Your task to perform on an android device: see creations saved in the google photos Image 0: 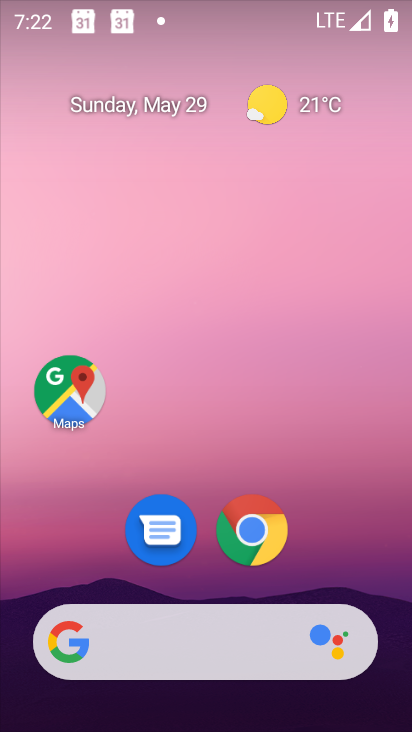
Step 0: drag from (260, 664) to (203, 181)
Your task to perform on an android device: see creations saved in the google photos Image 1: 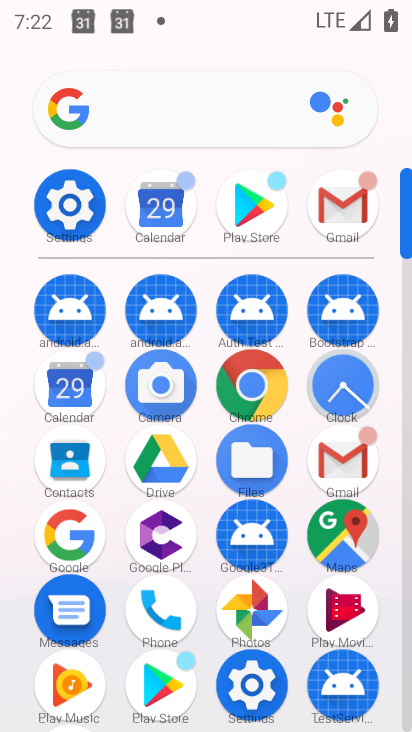
Step 1: click (239, 614)
Your task to perform on an android device: see creations saved in the google photos Image 2: 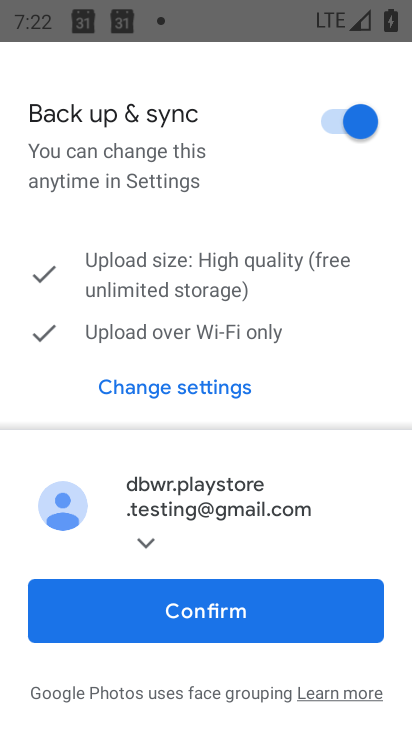
Step 2: click (213, 610)
Your task to perform on an android device: see creations saved in the google photos Image 3: 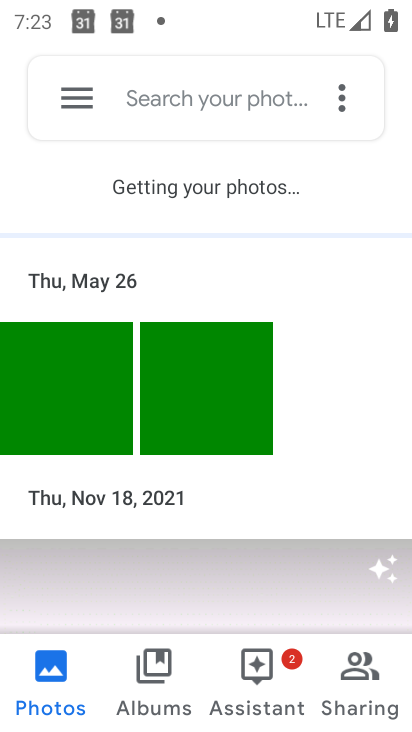
Step 3: click (222, 388)
Your task to perform on an android device: see creations saved in the google photos Image 4: 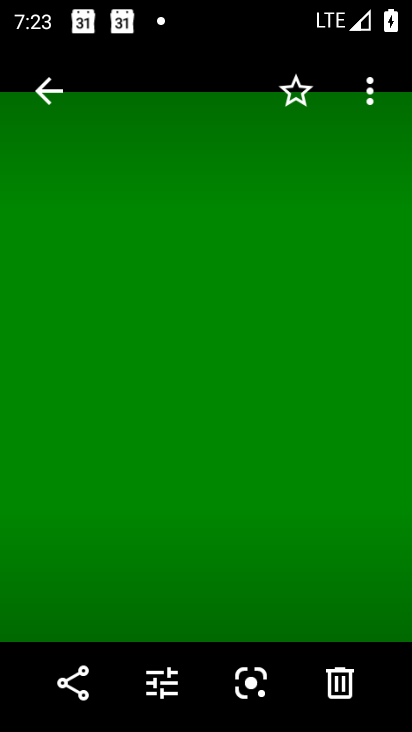
Step 4: click (367, 107)
Your task to perform on an android device: see creations saved in the google photos Image 5: 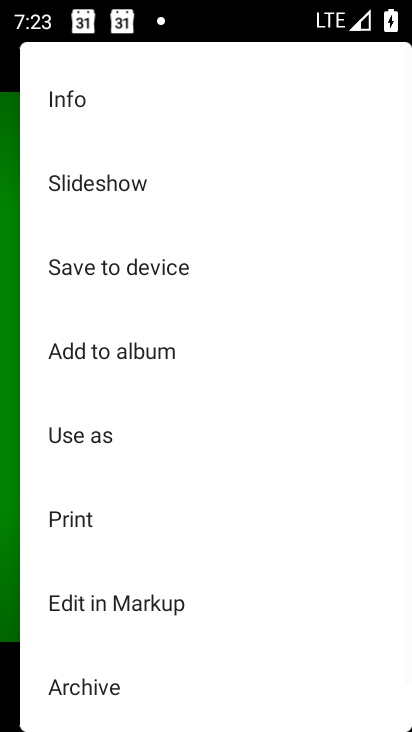
Step 5: click (132, 272)
Your task to perform on an android device: see creations saved in the google photos Image 6: 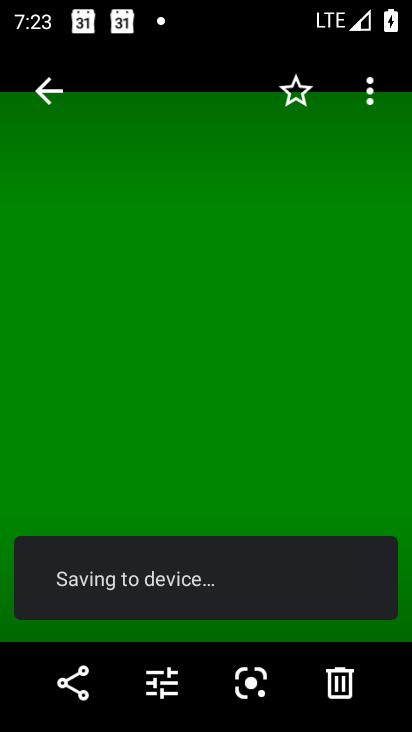
Step 6: task complete